Your task to perform on an android device: turn off location history Image 0: 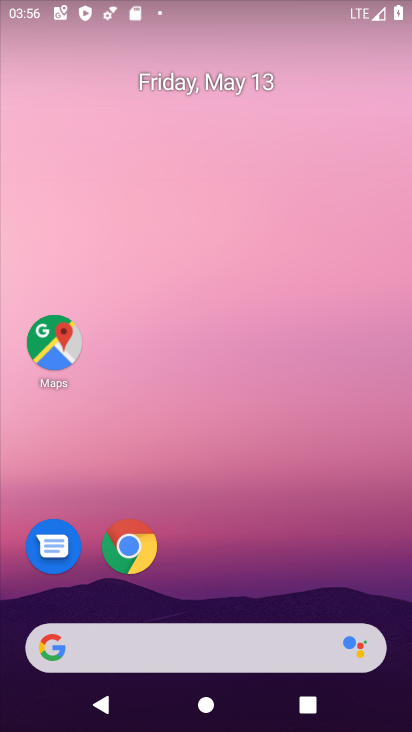
Step 0: drag from (223, 611) to (271, 210)
Your task to perform on an android device: turn off location history Image 1: 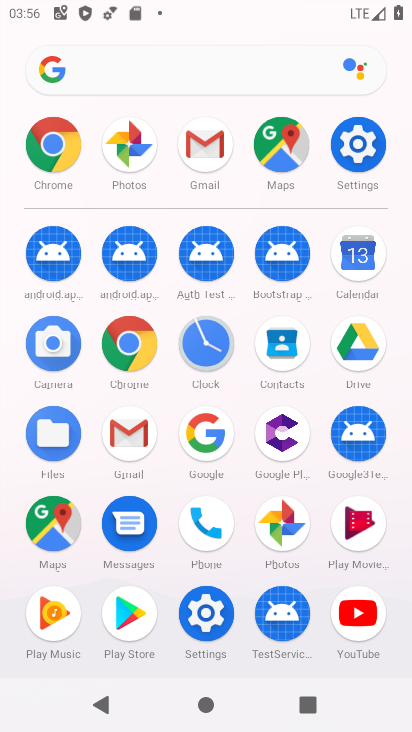
Step 1: click (372, 140)
Your task to perform on an android device: turn off location history Image 2: 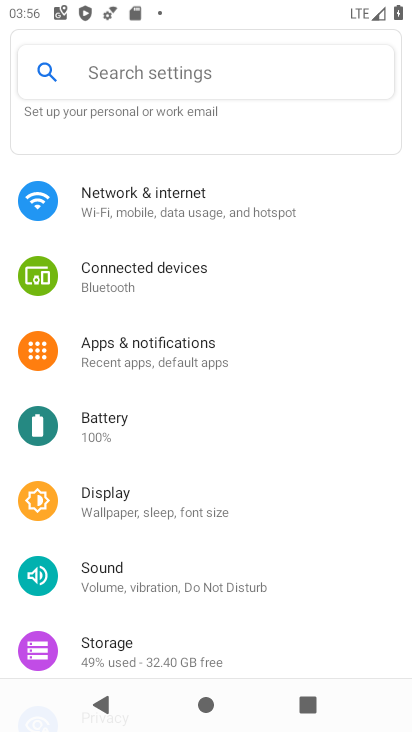
Step 2: drag from (213, 270) to (248, 95)
Your task to perform on an android device: turn off location history Image 3: 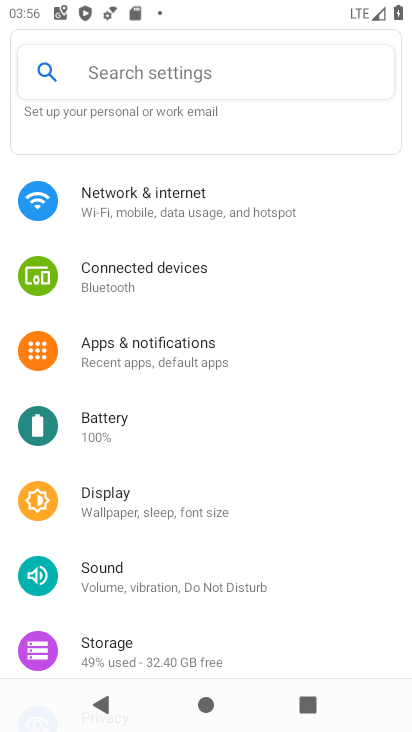
Step 3: drag from (134, 558) to (299, 8)
Your task to perform on an android device: turn off location history Image 4: 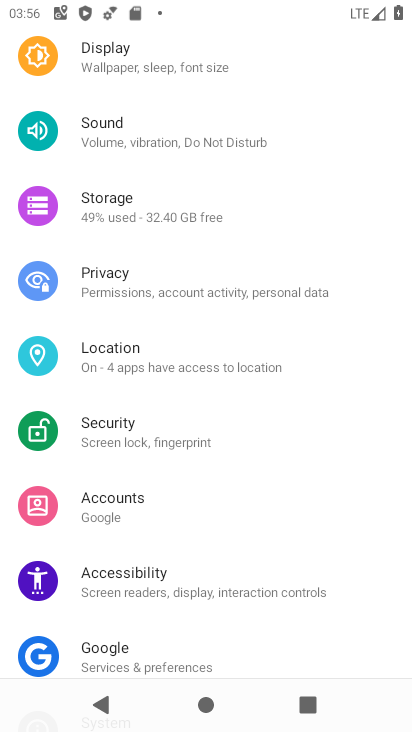
Step 4: click (163, 371)
Your task to perform on an android device: turn off location history Image 5: 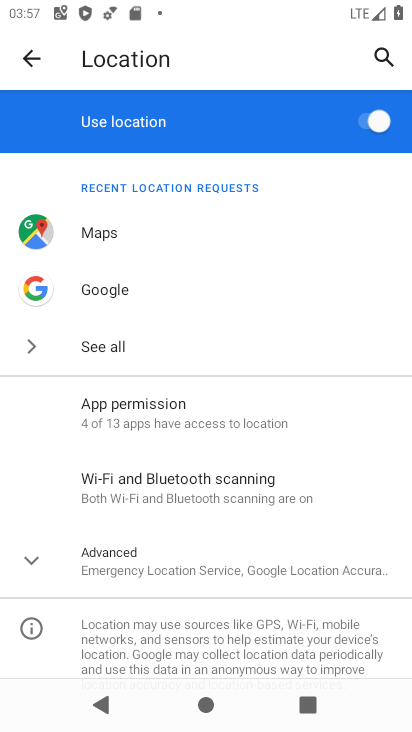
Step 5: click (216, 574)
Your task to perform on an android device: turn off location history Image 6: 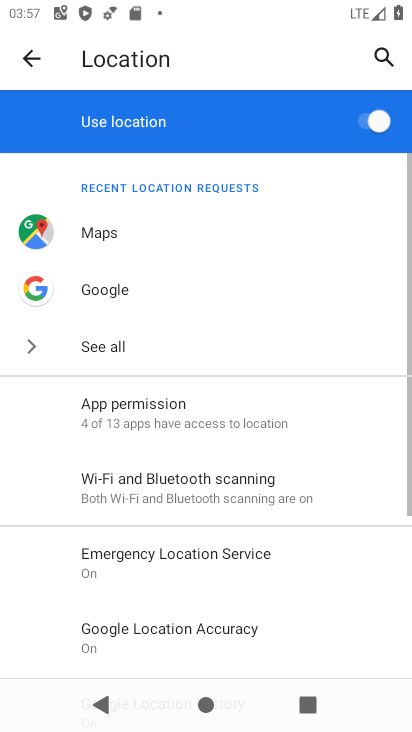
Step 6: drag from (164, 600) to (268, 216)
Your task to perform on an android device: turn off location history Image 7: 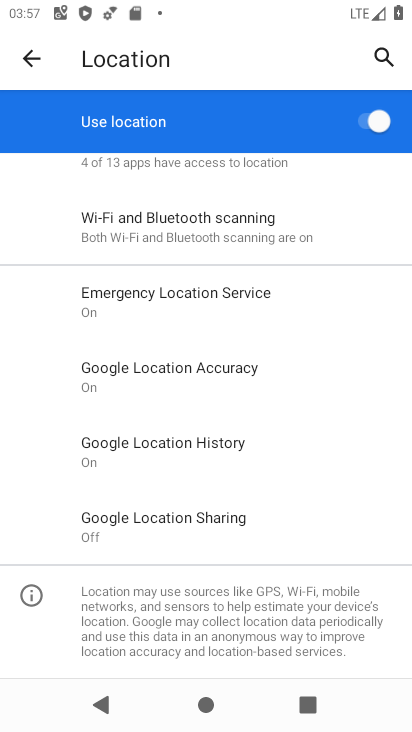
Step 7: click (263, 457)
Your task to perform on an android device: turn off location history Image 8: 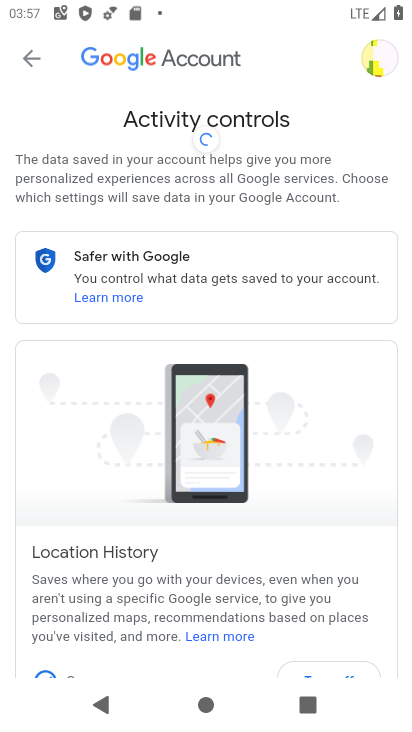
Step 8: click (253, 587)
Your task to perform on an android device: turn off location history Image 9: 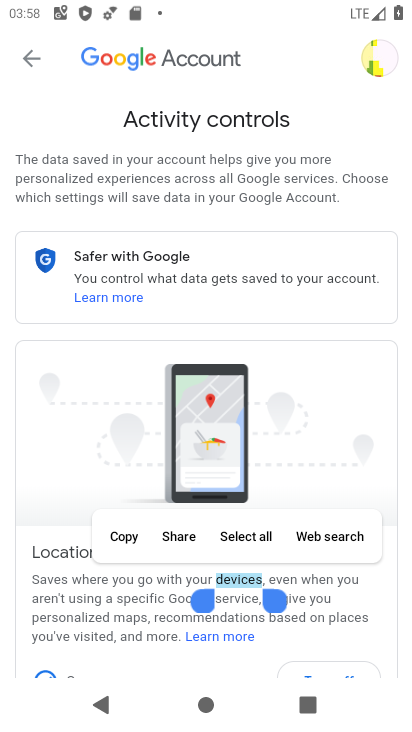
Step 9: drag from (125, 624) to (284, 131)
Your task to perform on an android device: turn off location history Image 10: 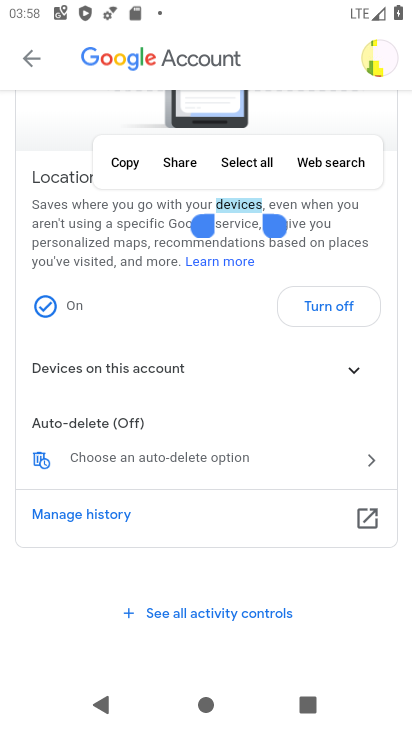
Step 10: click (337, 314)
Your task to perform on an android device: turn off location history Image 11: 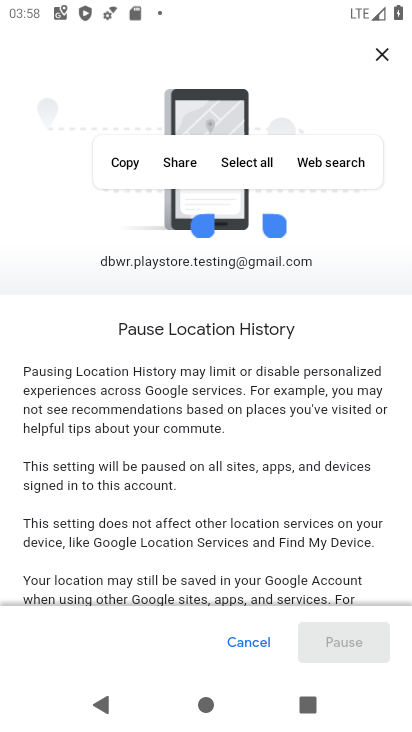
Step 11: drag from (218, 537) to (289, 193)
Your task to perform on an android device: turn off location history Image 12: 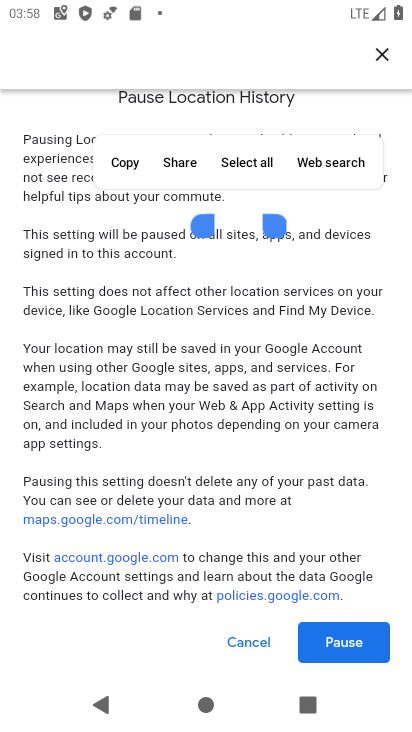
Step 12: click (325, 639)
Your task to perform on an android device: turn off location history Image 13: 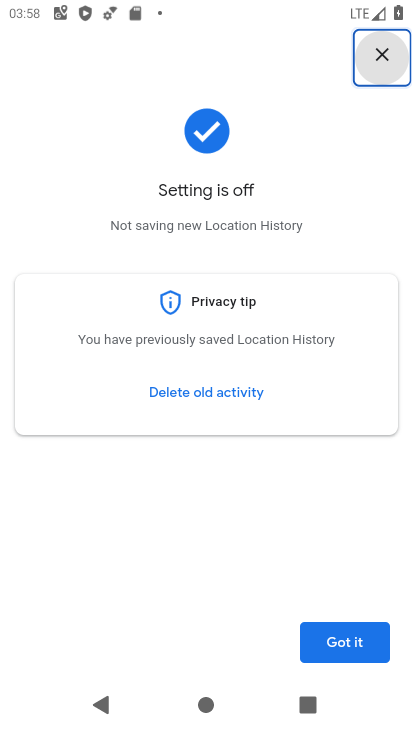
Step 13: click (369, 639)
Your task to perform on an android device: turn off location history Image 14: 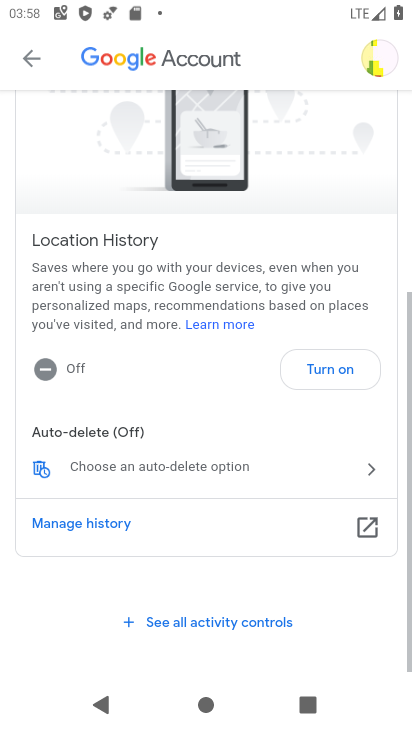
Step 14: task complete